Your task to perform on an android device: turn on airplane mode Image 0: 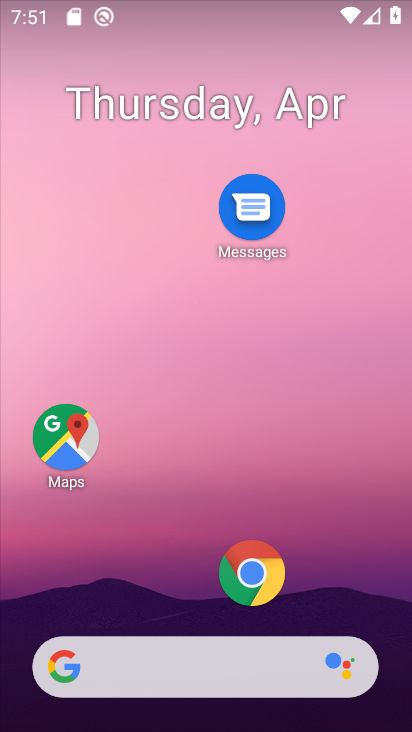
Step 0: press home button
Your task to perform on an android device: turn on airplane mode Image 1: 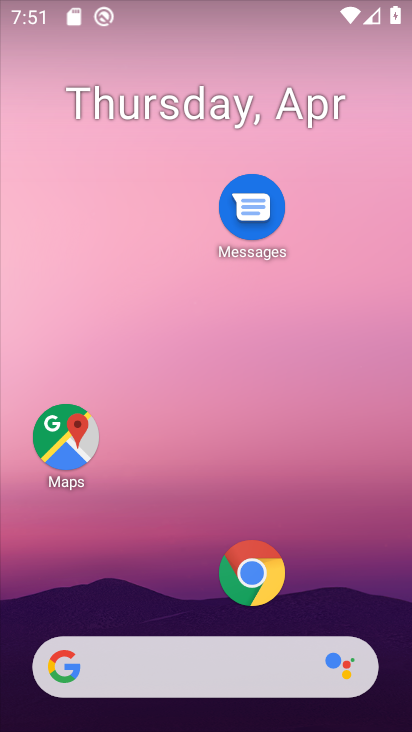
Step 1: press home button
Your task to perform on an android device: turn on airplane mode Image 2: 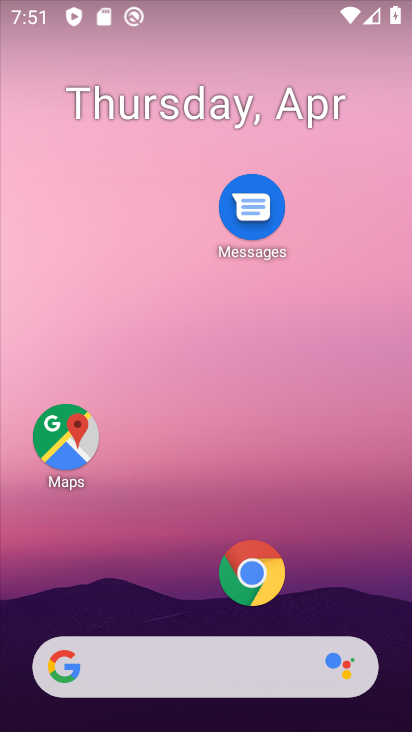
Step 2: drag from (227, 10) to (227, 550)
Your task to perform on an android device: turn on airplane mode Image 3: 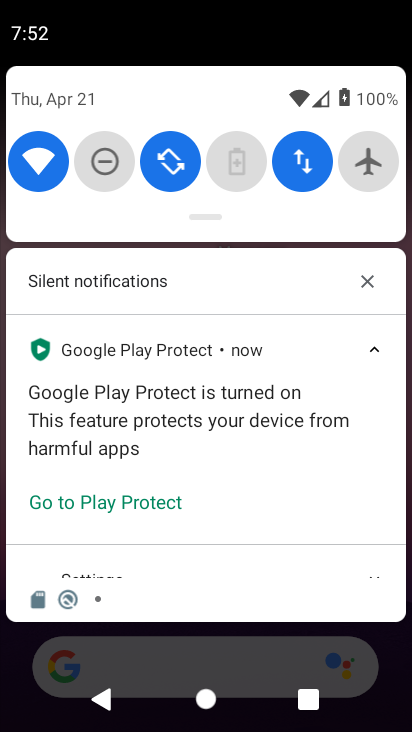
Step 3: click (373, 160)
Your task to perform on an android device: turn on airplane mode Image 4: 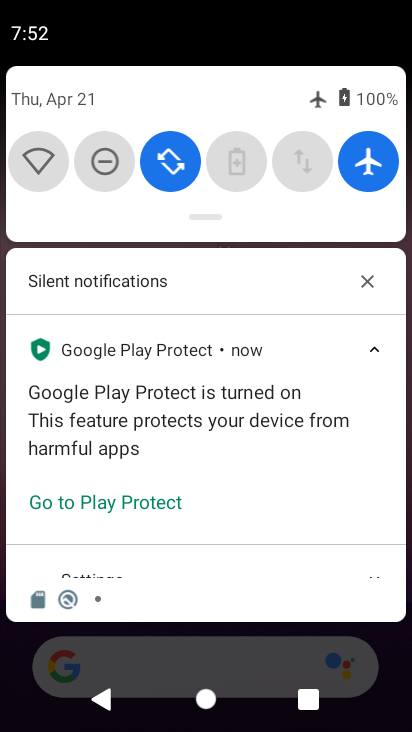
Step 4: task complete